Your task to perform on an android device: Open Google Image 0: 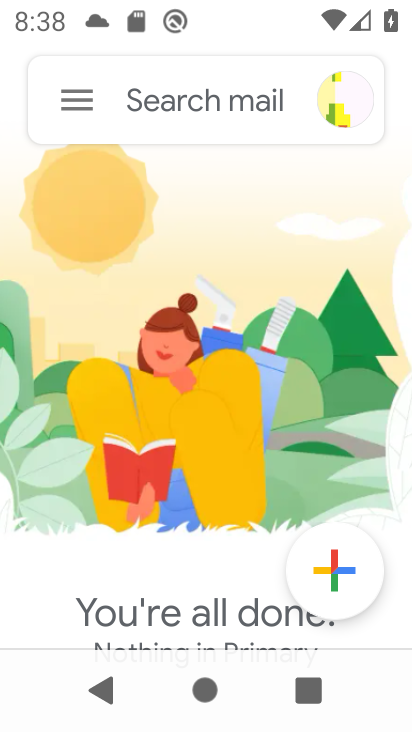
Step 0: press home button
Your task to perform on an android device: Open Google Image 1: 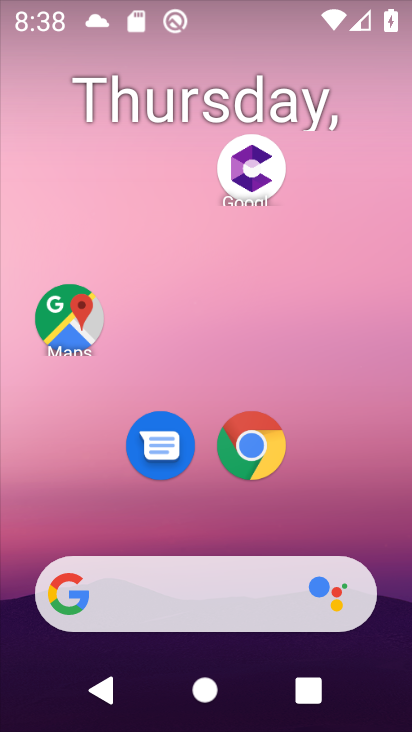
Step 1: click (259, 432)
Your task to perform on an android device: Open Google Image 2: 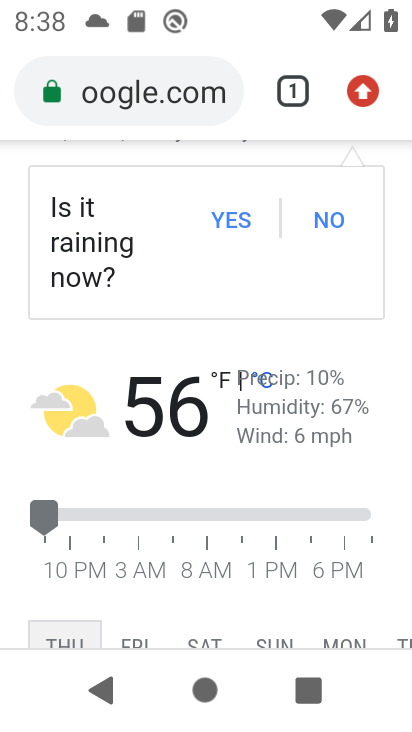
Step 2: drag from (178, 185) to (167, 502)
Your task to perform on an android device: Open Google Image 3: 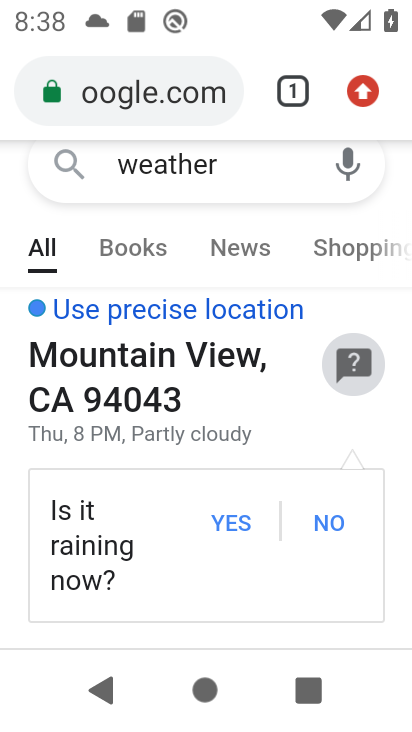
Step 3: click (161, 114)
Your task to perform on an android device: Open Google Image 4: 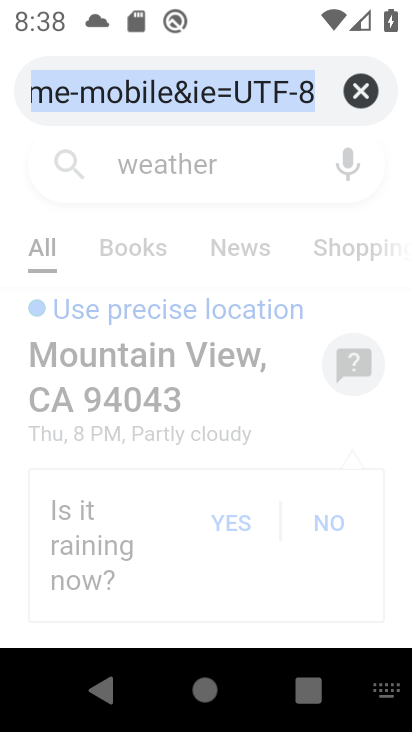
Step 4: type "google.com"
Your task to perform on an android device: Open Google Image 5: 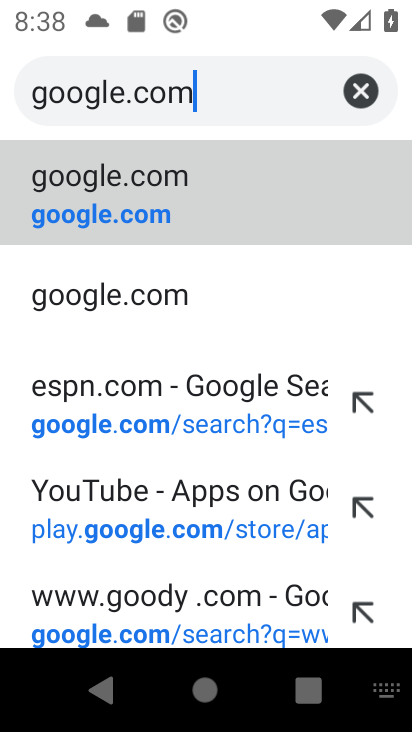
Step 5: click (170, 178)
Your task to perform on an android device: Open Google Image 6: 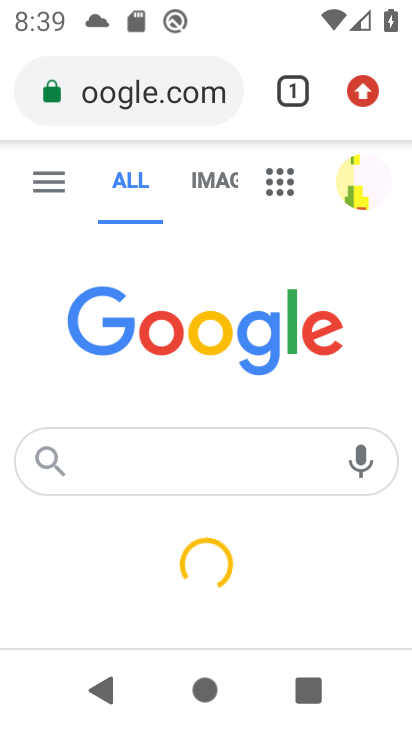
Step 6: task complete